Your task to perform on an android device: Go to Amazon Image 0: 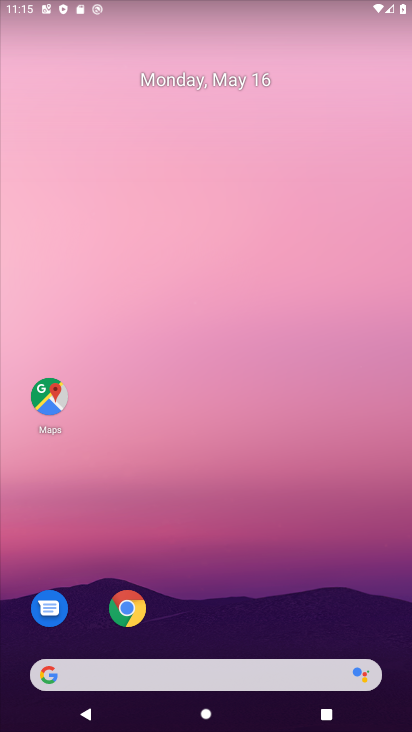
Step 0: press home button
Your task to perform on an android device: Go to Amazon Image 1: 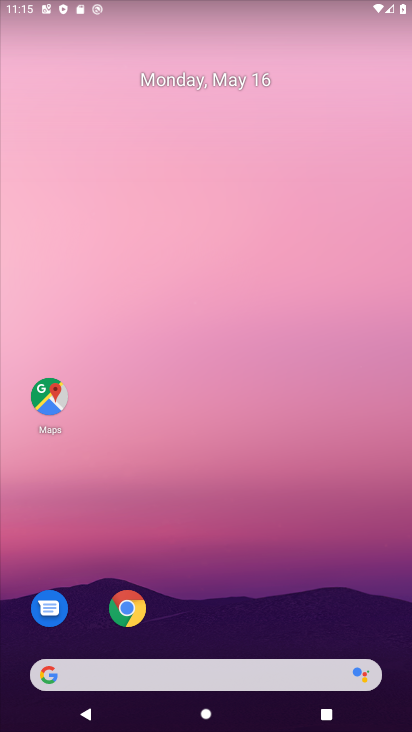
Step 1: click (133, 605)
Your task to perform on an android device: Go to Amazon Image 2: 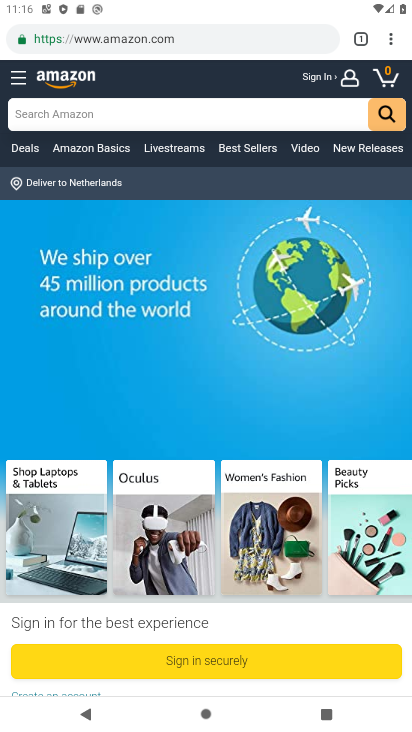
Step 2: task complete